Your task to perform on an android device: toggle airplane mode Image 0: 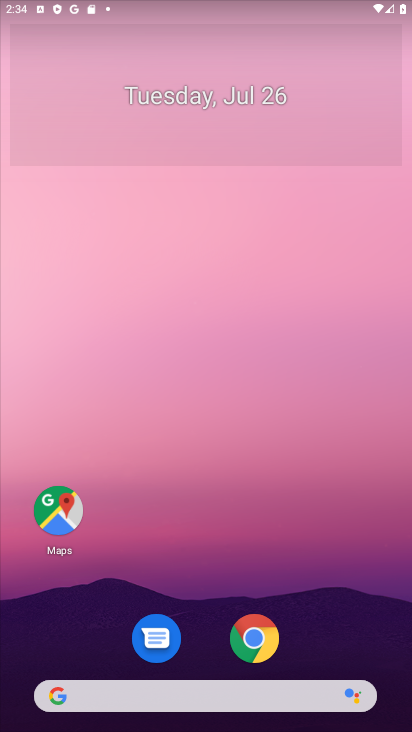
Step 0: drag from (212, 731) to (304, 42)
Your task to perform on an android device: toggle airplane mode Image 1: 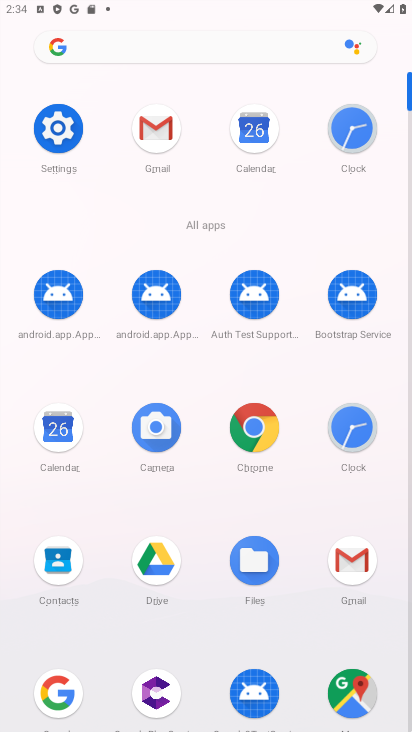
Step 1: click (34, 122)
Your task to perform on an android device: toggle airplane mode Image 2: 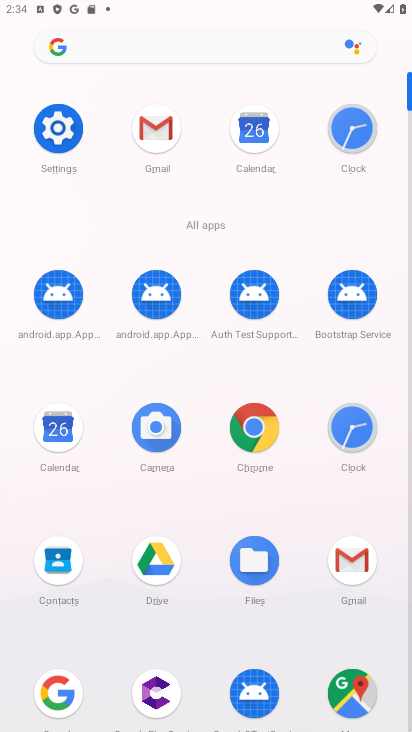
Step 2: click (34, 122)
Your task to perform on an android device: toggle airplane mode Image 3: 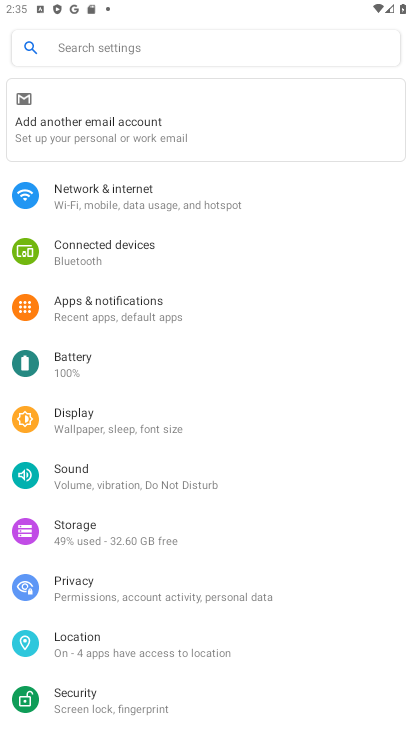
Step 3: click (198, 193)
Your task to perform on an android device: toggle airplane mode Image 4: 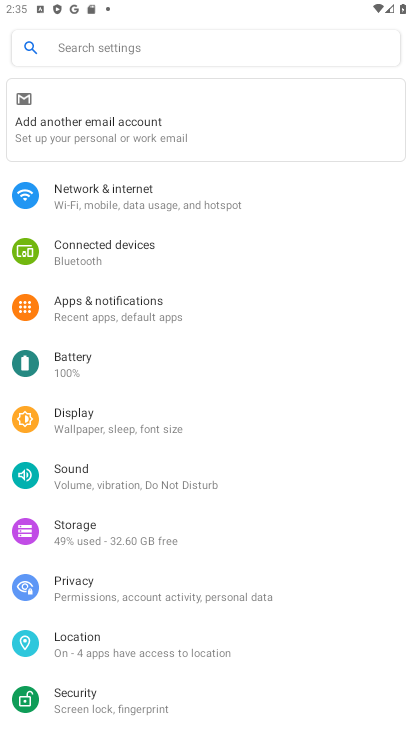
Step 4: click (198, 193)
Your task to perform on an android device: toggle airplane mode Image 5: 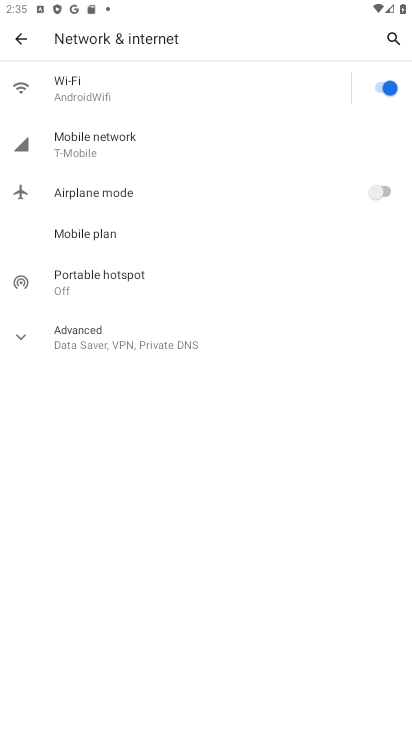
Step 5: click (386, 192)
Your task to perform on an android device: toggle airplane mode Image 6: 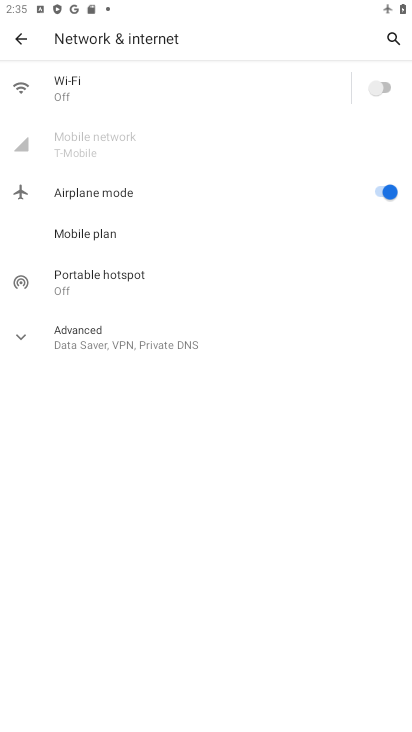
Step 6: task complete